Your task to perform on an android device: Open Google Chrome and open the bookmarks view Image 0: 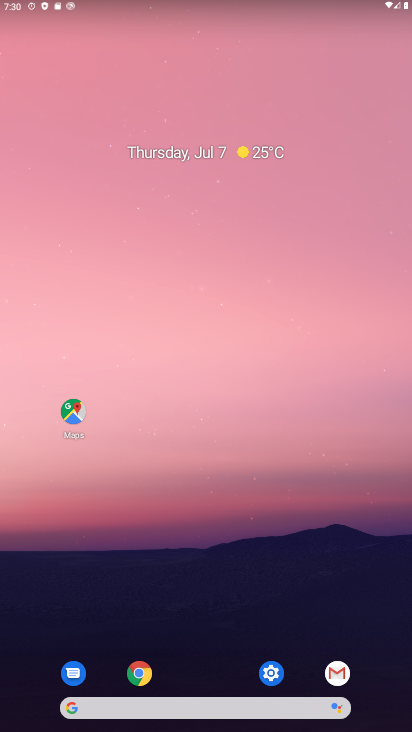
Step 0: drag from (270, 721) to (171, 285)
Your task to perform on an android device: Open Google Chrome and open the bookmarks view Image 1: 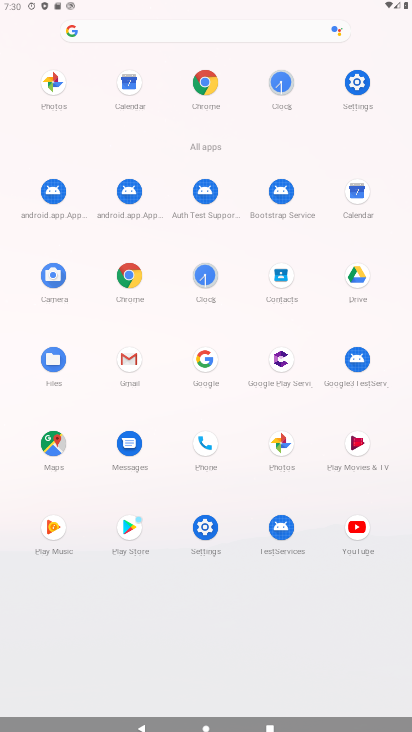
Step 1: click (133, 272)
Your task to perform on an android device: Open Google Chrome and open the bookmarks view Image 2: 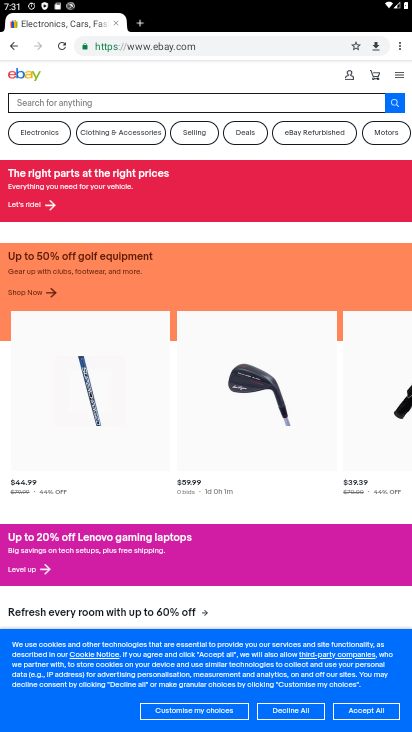
Step 2: click (401, 50)
Your task to perform on an android device: Open Google Chrome and open the bookmarks view Image 3: 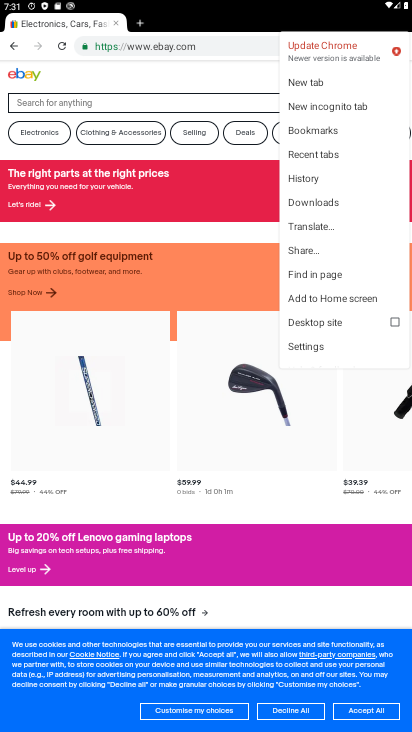
Step 3: click (321, 128)
Your task to perform on an android device: Open Google Chrome and open the bookmarks view Image 4: 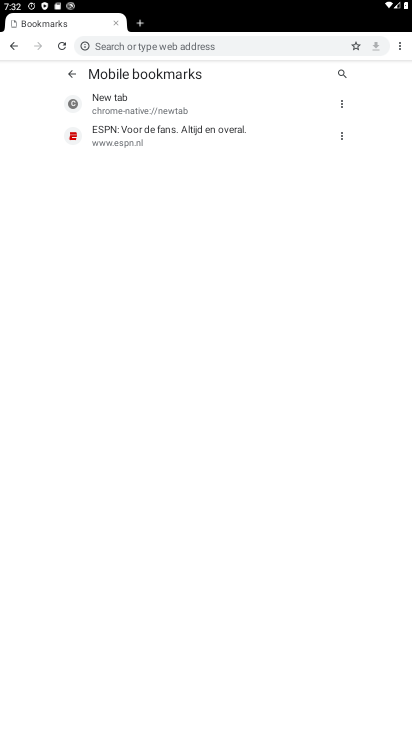
Step 4: task complete